Your task to perform on an android device: change the clock style Image 0: 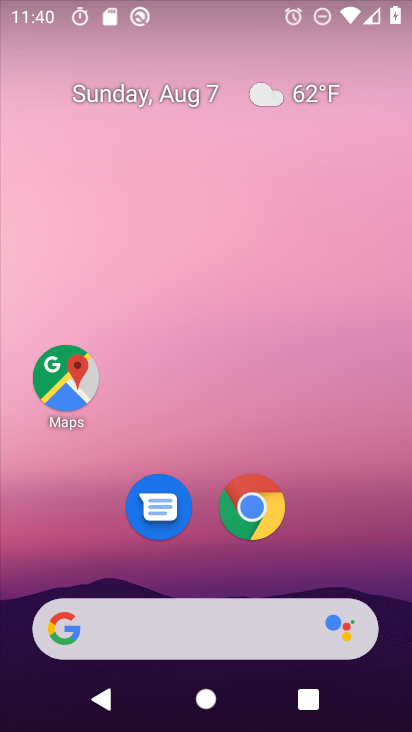
Step 0: drag from (370, 548) to (351, 64)
Your task to perform on an android device: change the clock style Image 1: 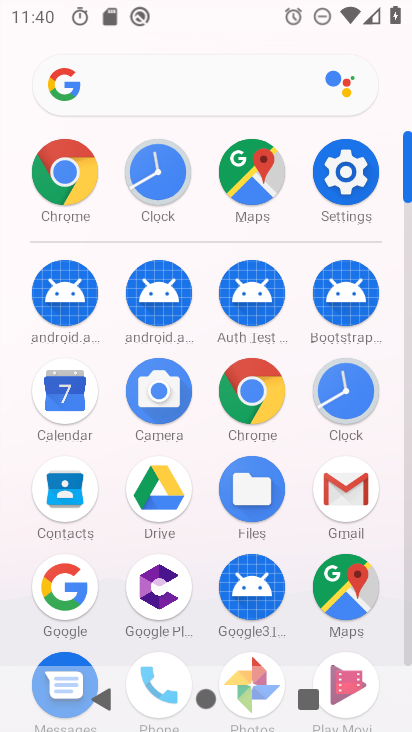
Step 1: click (340, 386)
Your task to perform on an android device: change the clock style Image 2: 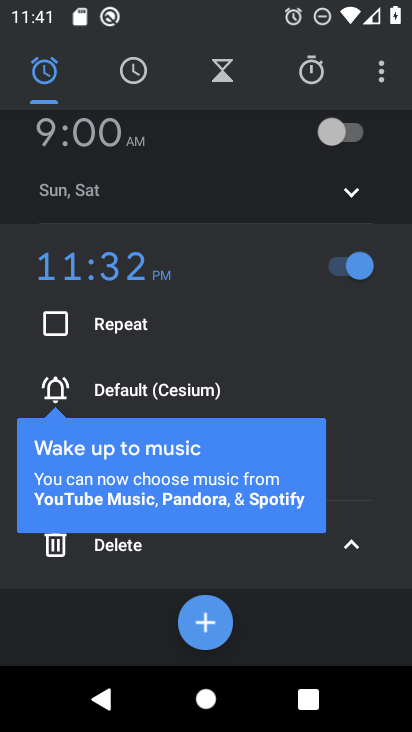
Step 2: click (381, 65)
Your task to perform on an android device: change the clock style Image 3: 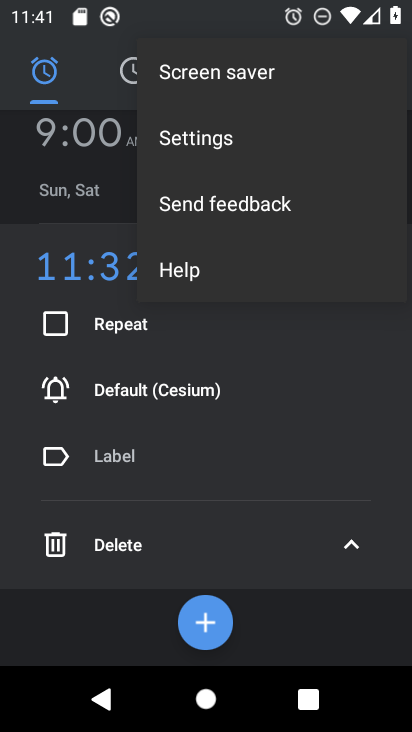
Step 3: click (226, 143)
Your task to perform on an android device: change the clock style Image 4: 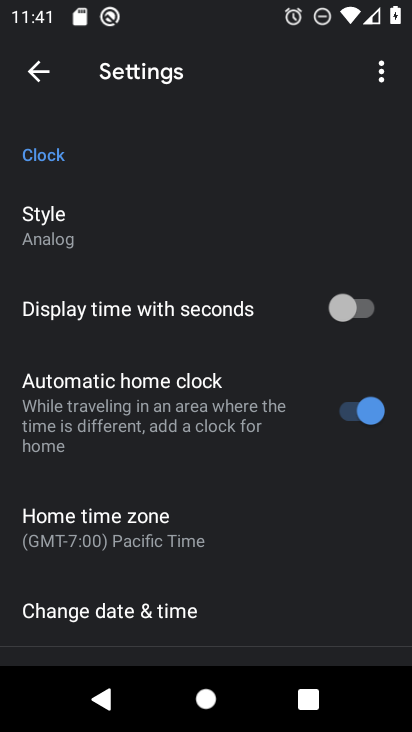
Step 4: click (67, 223)
Your task to perform on an android device: change the clock style Image 5: 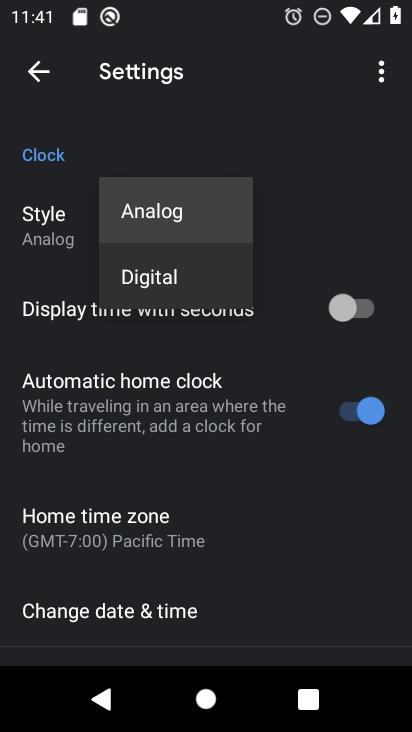
Step 5: click (166, 277)
Your task to perform on an android device: change the clock style Image 6: 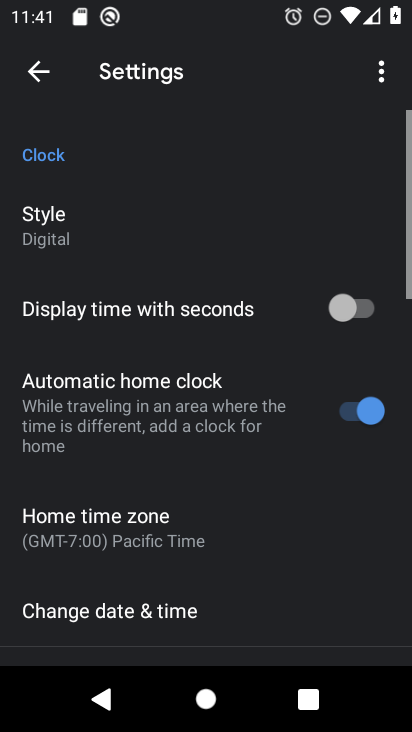
Step 6: task complete